Your task to perform on an android device: change notification settings in the gmail app Image 0: 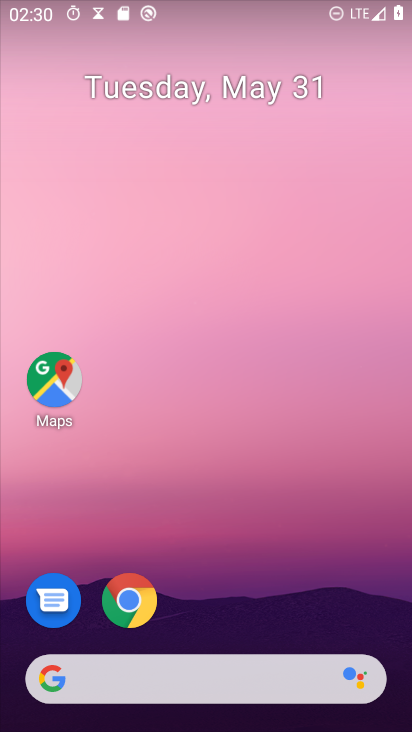
Step 0: drag from (200, 724) to (200, 47)
Your task to perform on an android device: change notification settings in the gmail app Image 1: 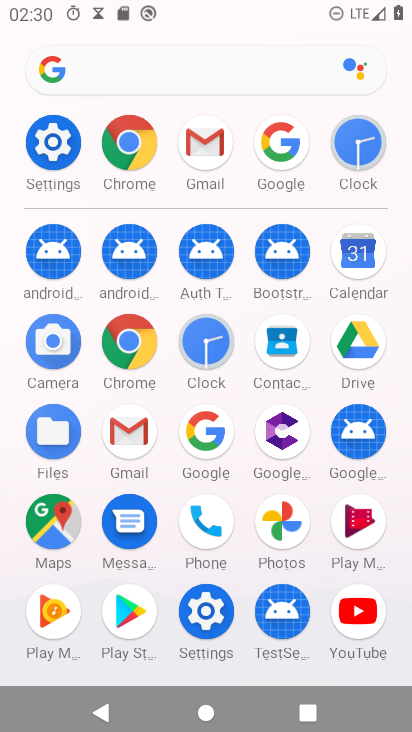
Step 1: click (129, 433)
Your task to perform on an android device: change notification settings in the gmail app Image 2: 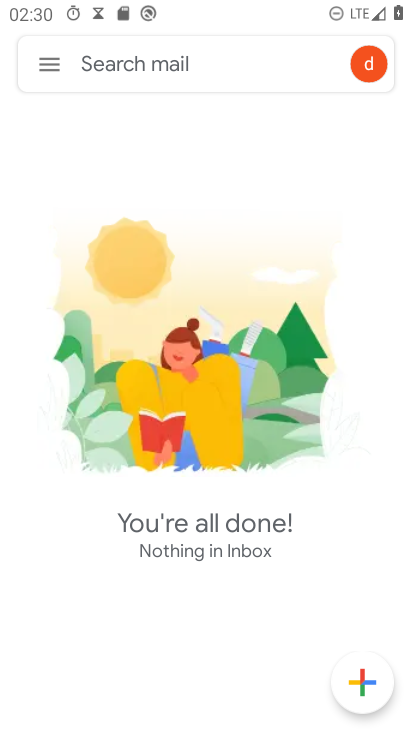
Step 2: click (55, 67)
Your task to perform on an android device: change notification settings in the gmail app Image 3: 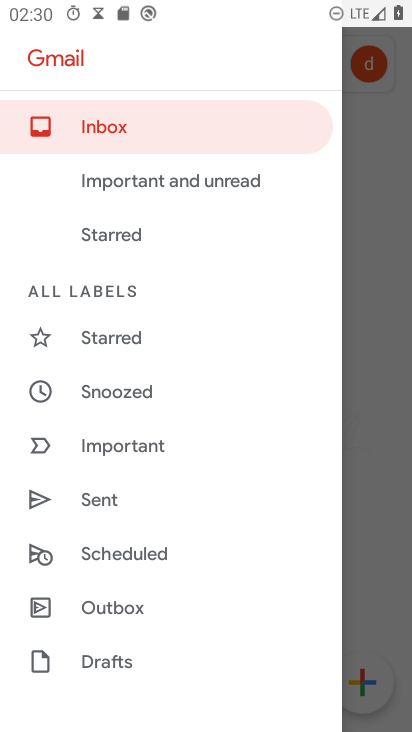
Step 3: drag from (135, 642) to (149, 192)
Your task to perform on an android device: change notification settings in the gmail app Image 4: 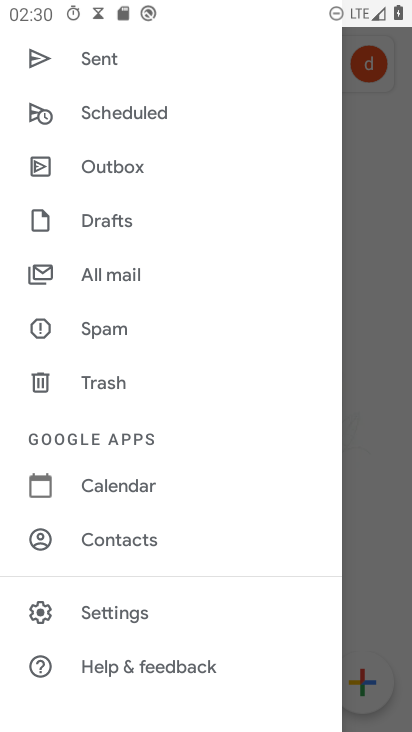
Step 4: click (116, 616)
Your task to perform on an android device: change notification settings in the gmail app Image 5: 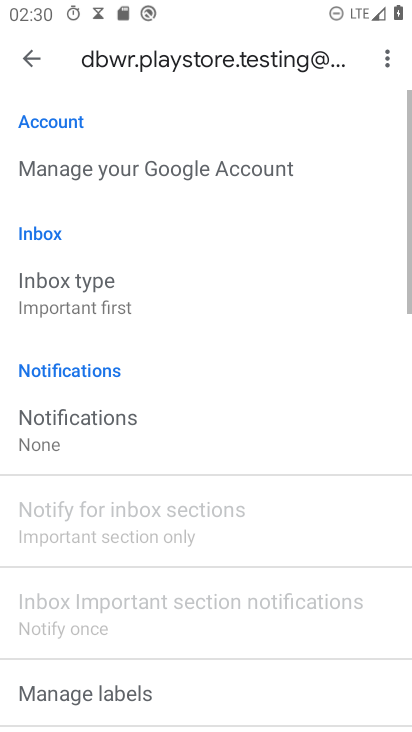
Step 5: click (106, 415)
Your task to perform on an android device: change notification settings in the gmail app Image 6: 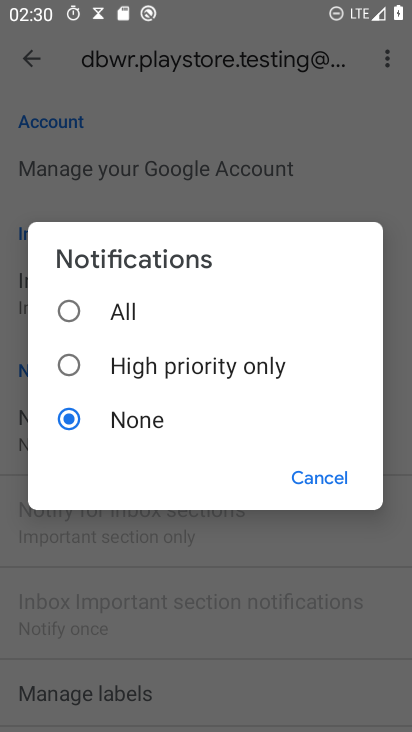
Step 6: click (73, 307)
Your task to perform on an android device: change notification settings in the gmail app Image 7: 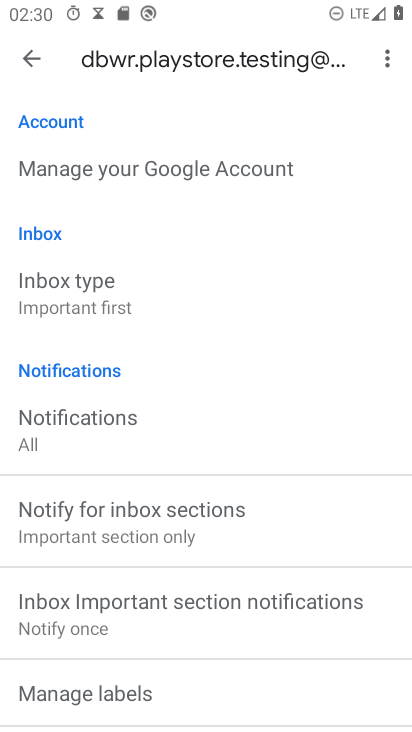
Step 7: task complete